Your task to perform on an android device: turn off translation in the chrome app Image 0: 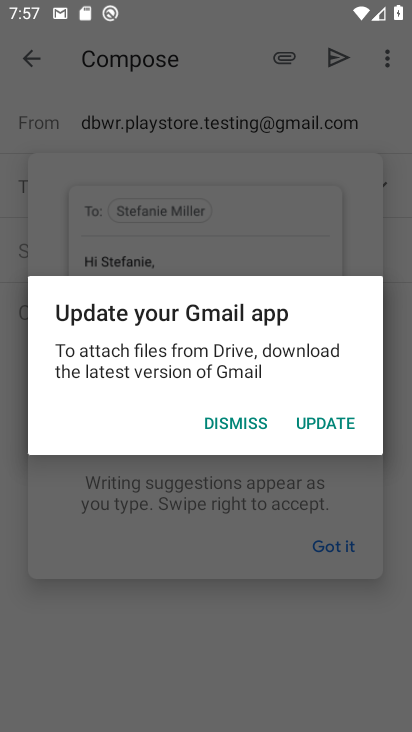
Step 0: press home button
Your task to perform on an android device: turn off translation in the chrome app Image 1: 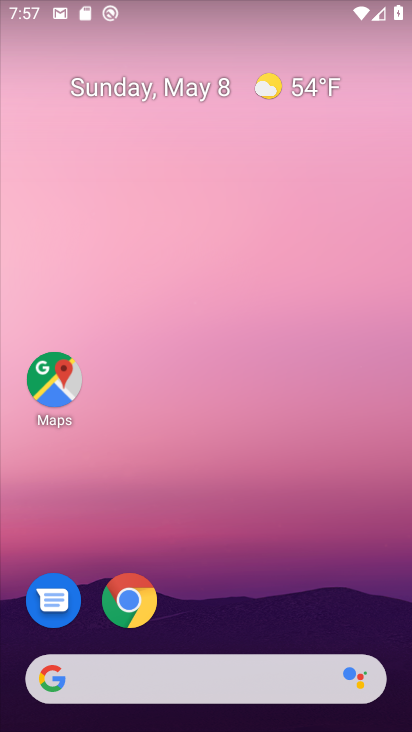
Step 1: click (134, 602)
Your task to perform on an android device: turn off translation in the chrome app Image 2: 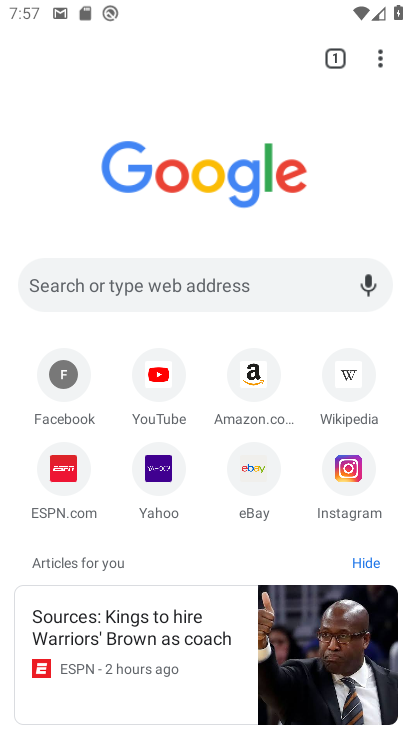
Step 2: click (384, 33)
Your task to perform on an android device: turn off translation in the chrome app Image 3: 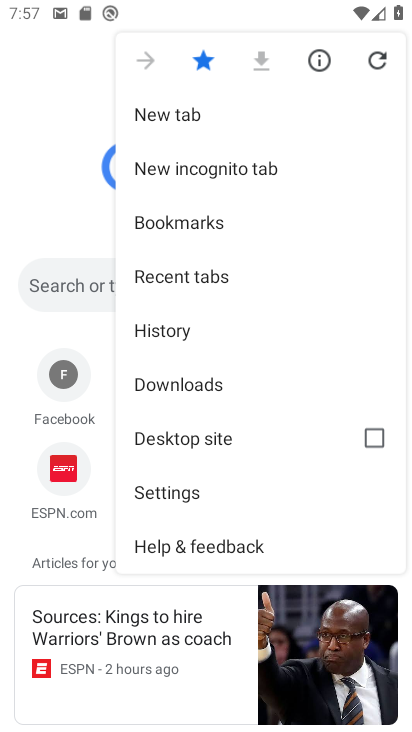
Step 3: task complete